Your task to perform on an android device: check android version Image 0: 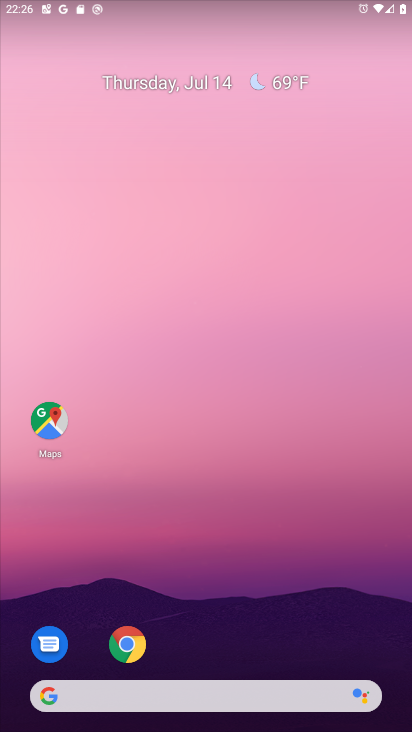
Step 0: drag from (177, 643) to (288, 16)
Your task to perform on an android device: check android version Image 1: 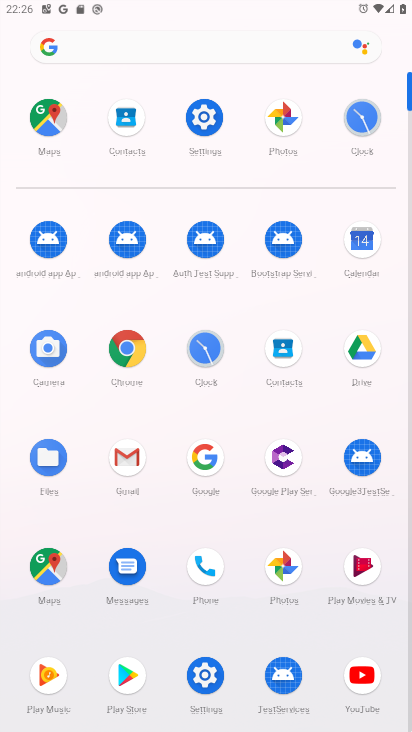
Step 1: click (200, 131)
Your task to perform on an android device: check android version Image 2: 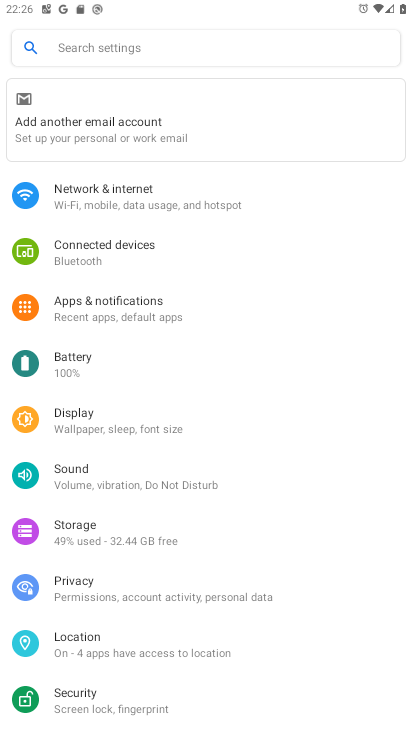
Step 2: drag from (110, 641) to (210, 10)
Your task to perform on an android device: check android version Image 3: 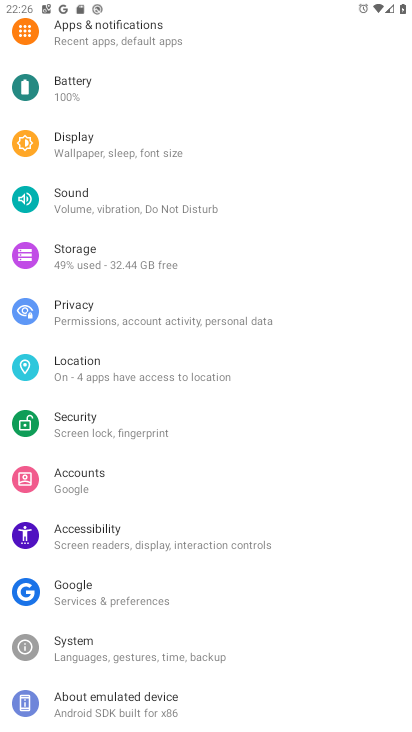
Step 3: drag from (162, 696) to (190, 70)
Your task to perform on an android device: check android version Image 4: 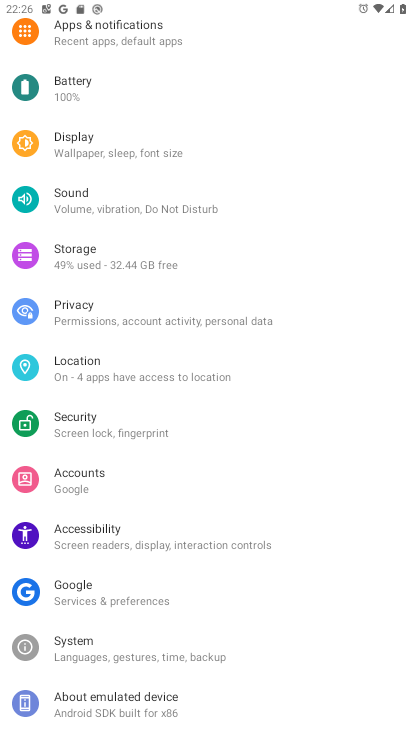
Step 4: click (202, 711)
Your task to perform on an android device: check android version Image 5: 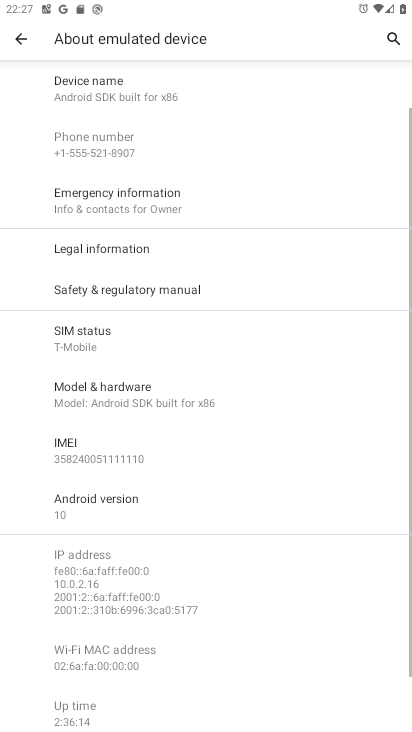
Step 5: click (108, 512)
Your task to perform on an android device: check android version Image 6: 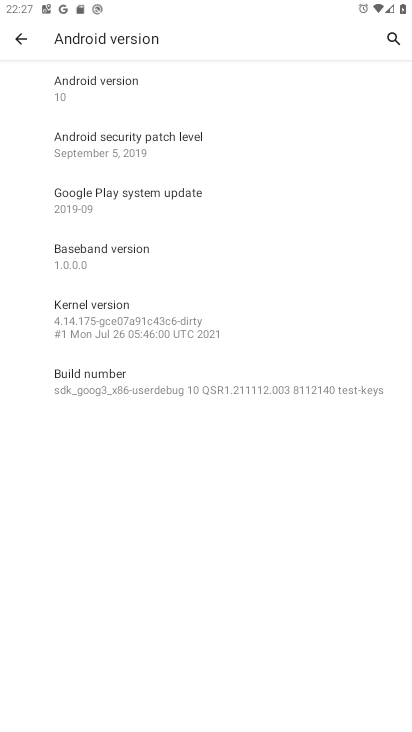
Step 6: task complete